Your task to perform on an android device: Search for usb-a on bestbuy.com, select the first entry, add it to the cart, then select checkout. Image 0: 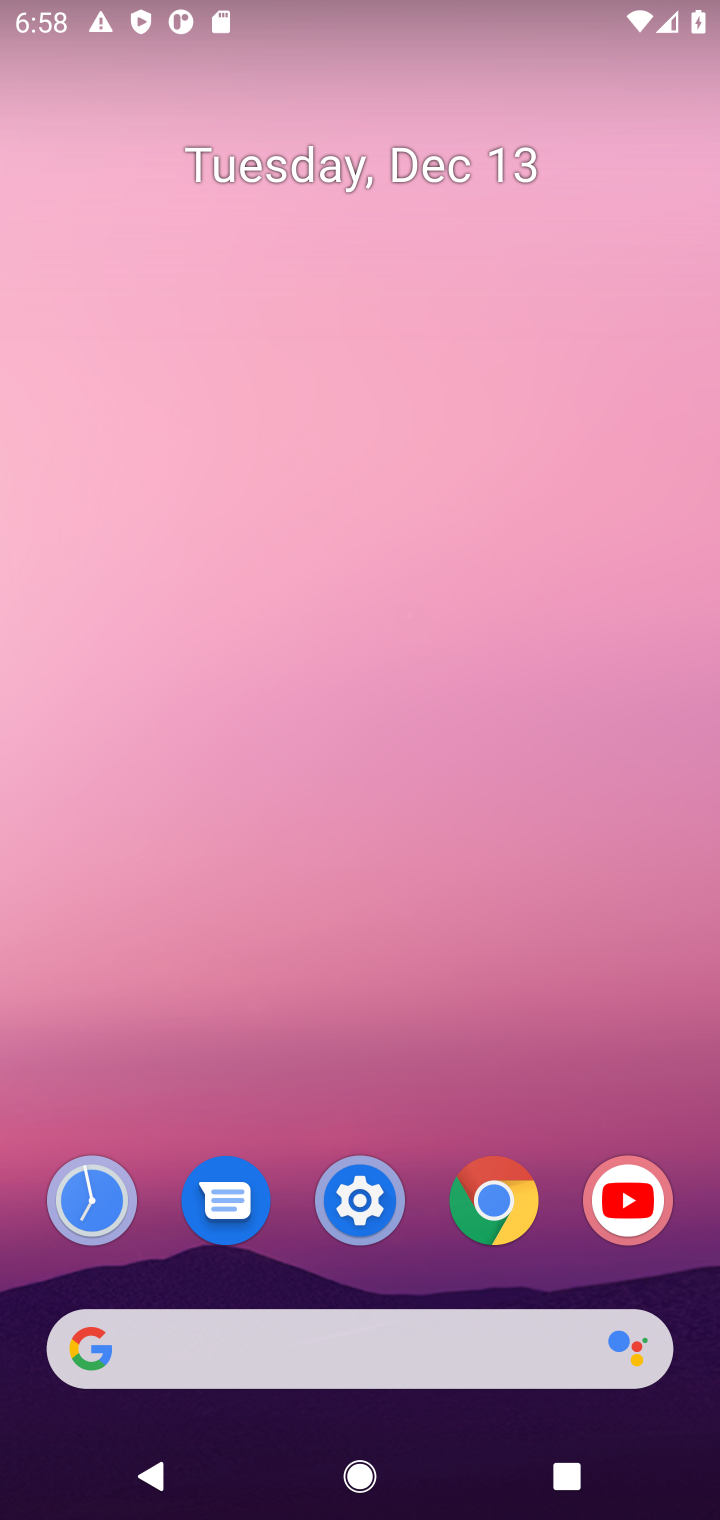
Step 0: click (279, 1316)
Your task to perform on an android device: Search for usb-a on bestbuy.com, select the first entry, add it to the cart, then select checkout. Image 1: 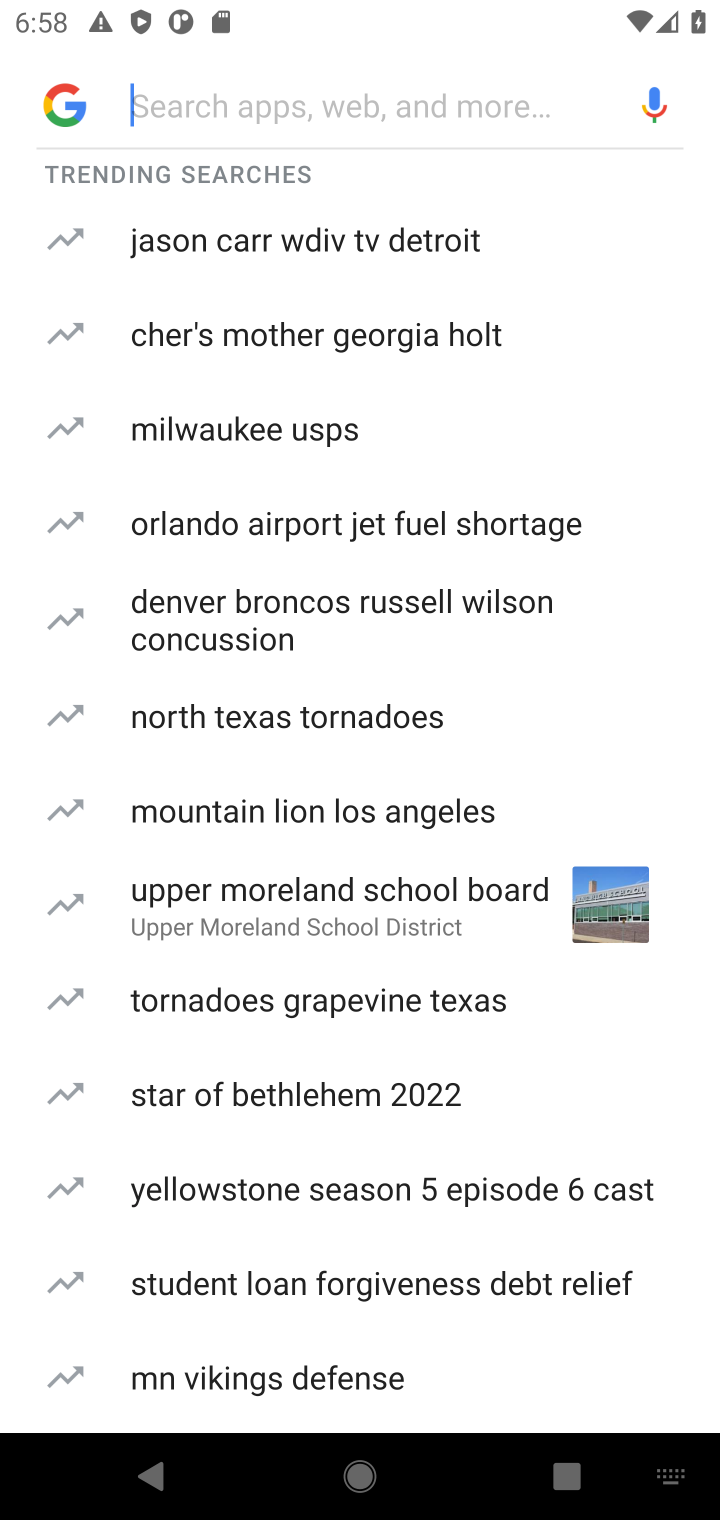
Step 1: type "bestbuy.com"
Your task to perform on an android device: Search for usb-a on bestbuy.com, select the first entry, add it to the cart, then select checkout. Image 2: 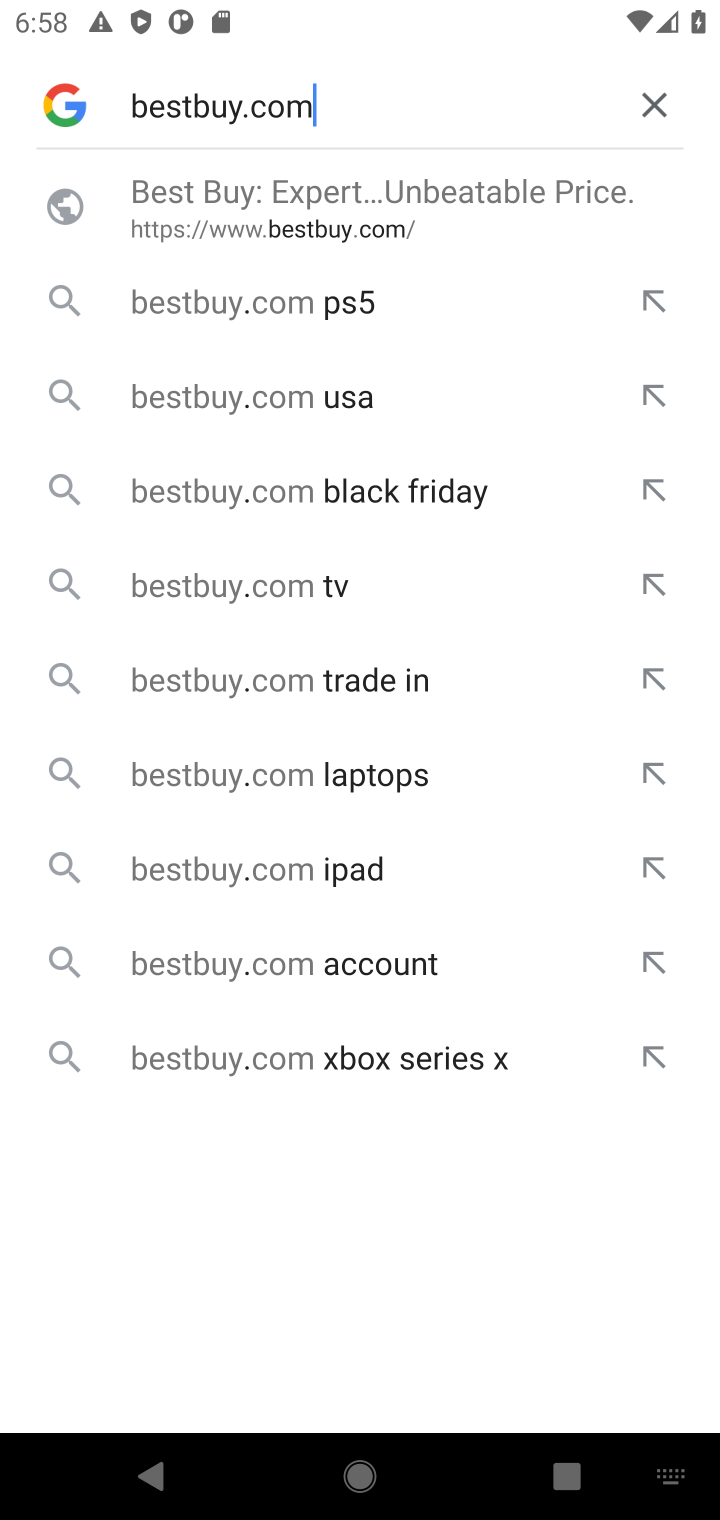
Step 2: click (325, 183)
Your task to perform on an android device: Search for usb-a on bestbuy.com, select the first entry, add it to the cart, then select checkout. Image 3: 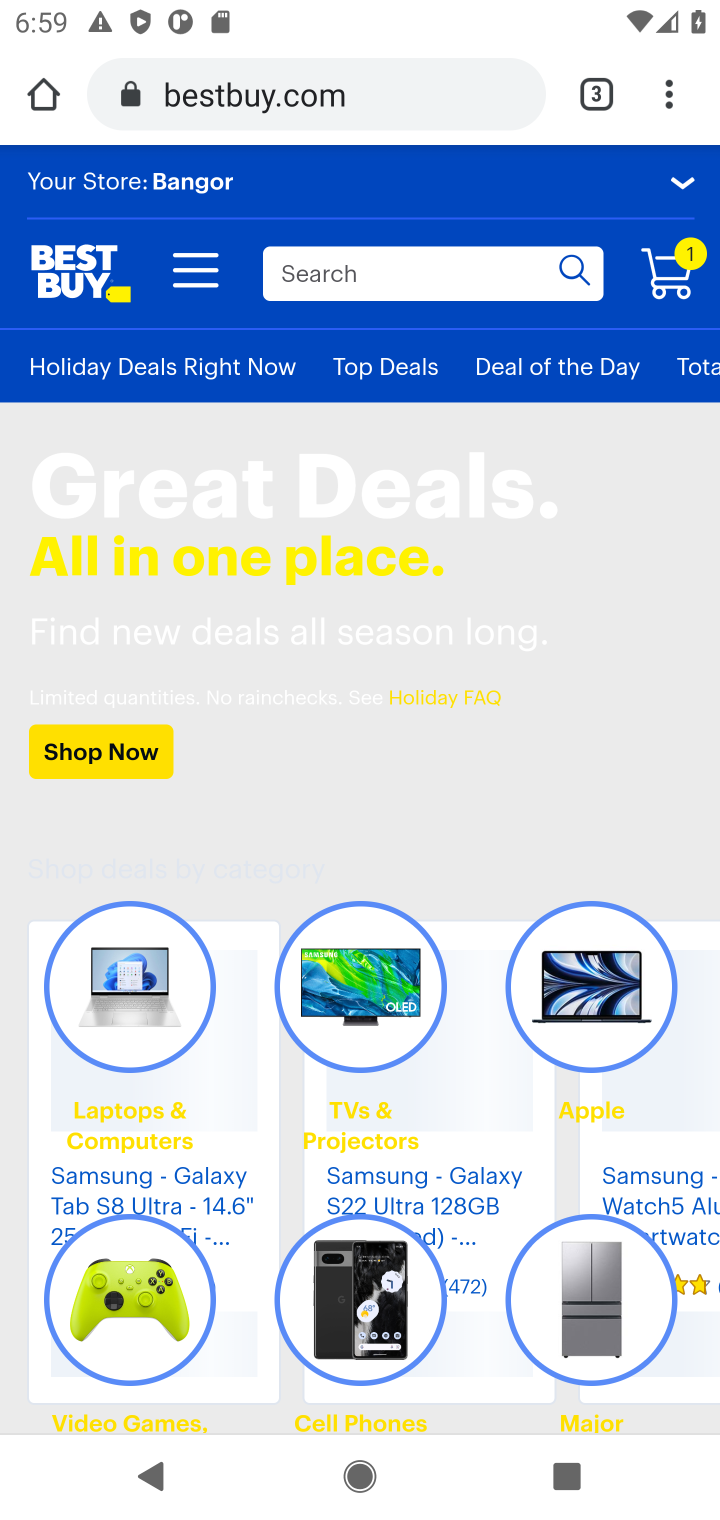
Step 3: click (497, 286)
Your task to perform on an android device: Search for usb-a on bestbuy.com, select the first entry, add it to the cart, then select checkout. Image 4: 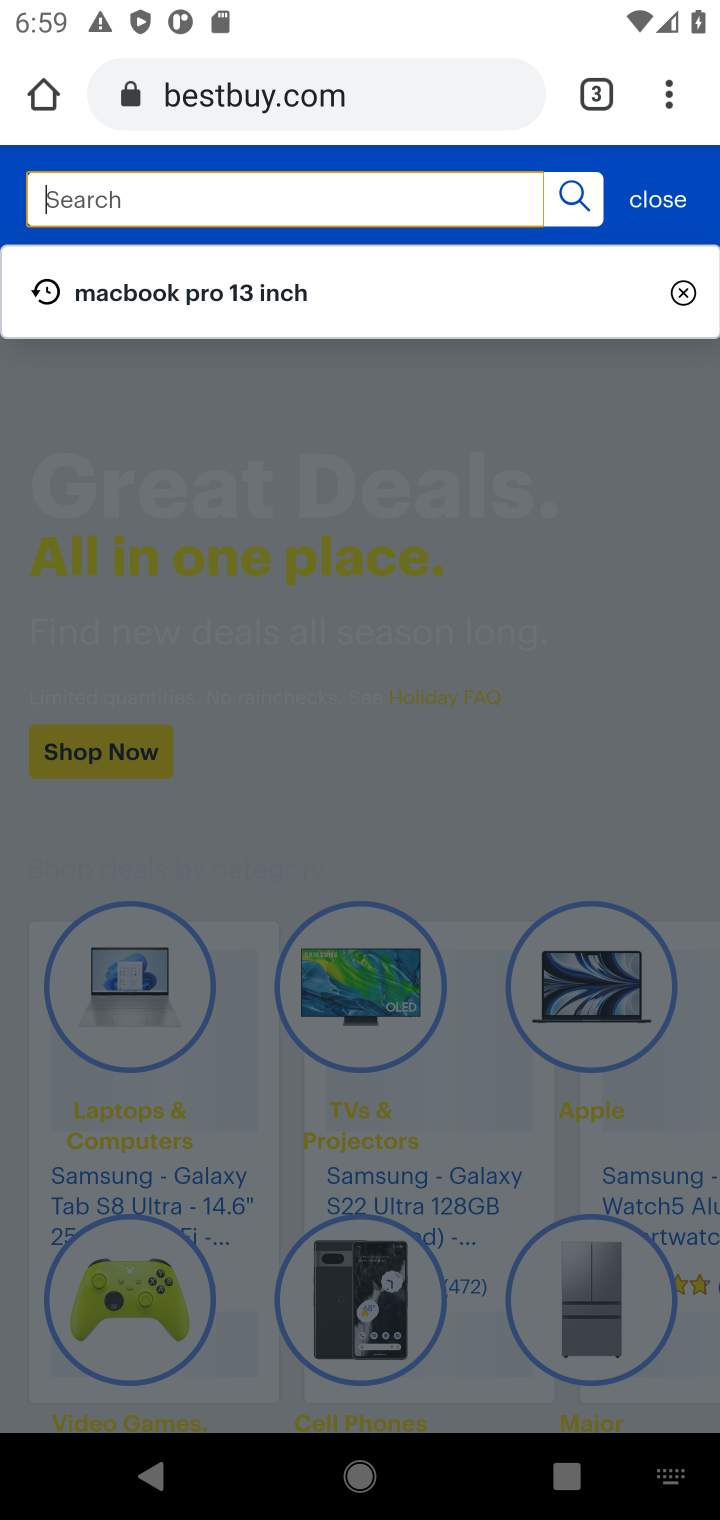
Step 4: type "usb-a "
Your task to perform on an android device: Search for usb-a on bestbuy.com, select the first entry, add it to the cart, then select checkout. Image 5: 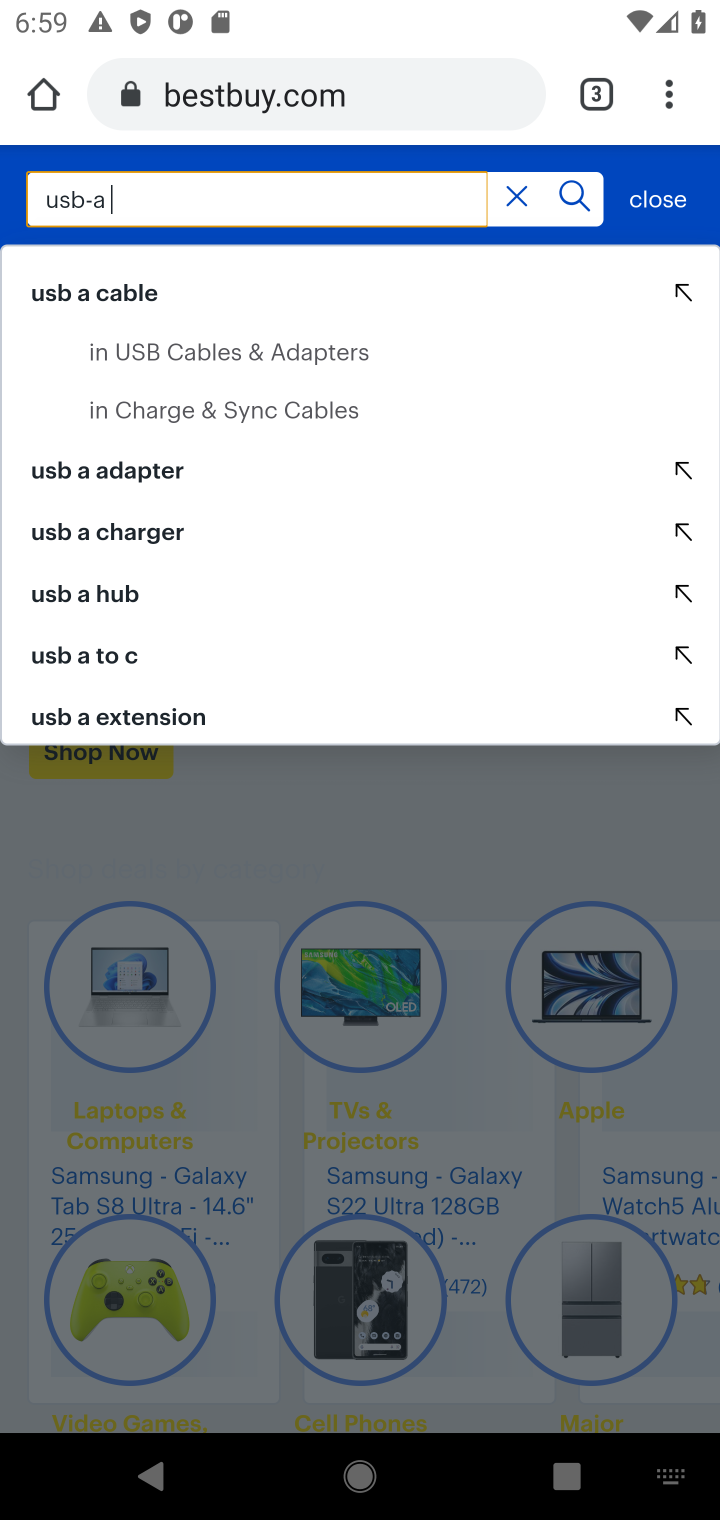
Step 5: click (569, 206)
Your task to perform on an android device: Search for usb-a on bestbuy.com, select the first entry, add it to the cart, then select checkout. Image 6: 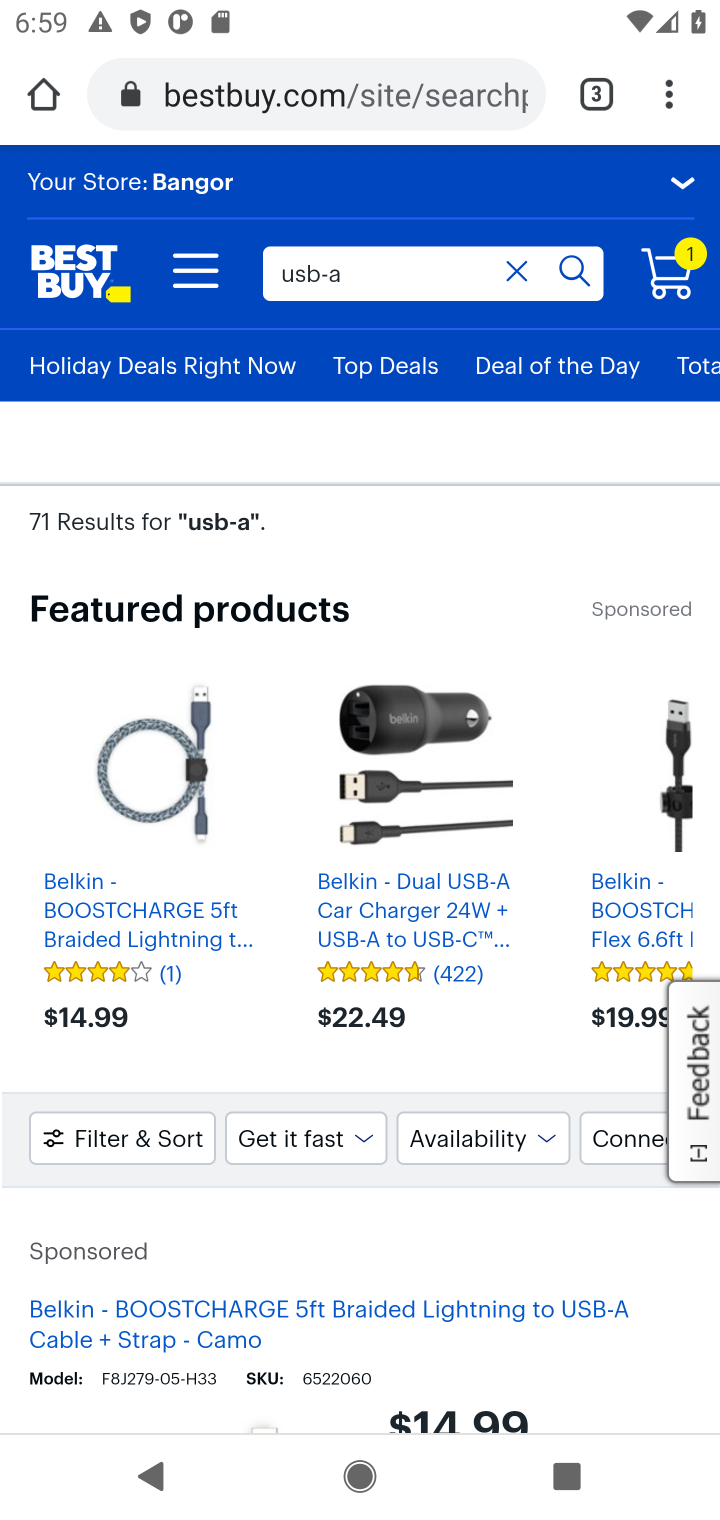
Step 6: drag from (578, 1118) to (599, 980)
Your task to perform on an android device: Search for usb-a on bestbuy.com, select the first entry, add it to the cart, then select checkout. Image 7: 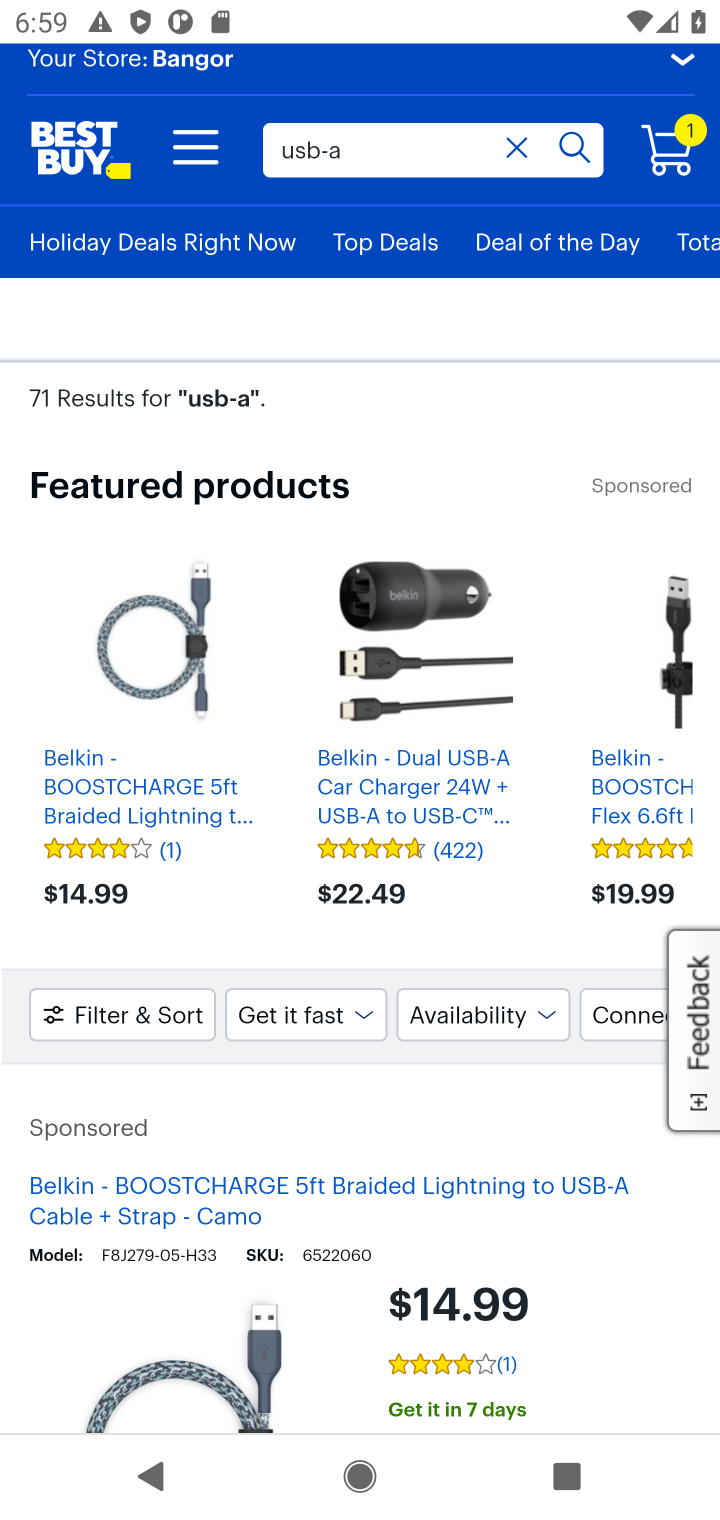
Step 7: drag from (481, 1237) to (455, 971)
Your task to perform on an android device: Search for usb-a on bestbuy.com, select the first entry, add it to the cart, then select checkout. Image 8: 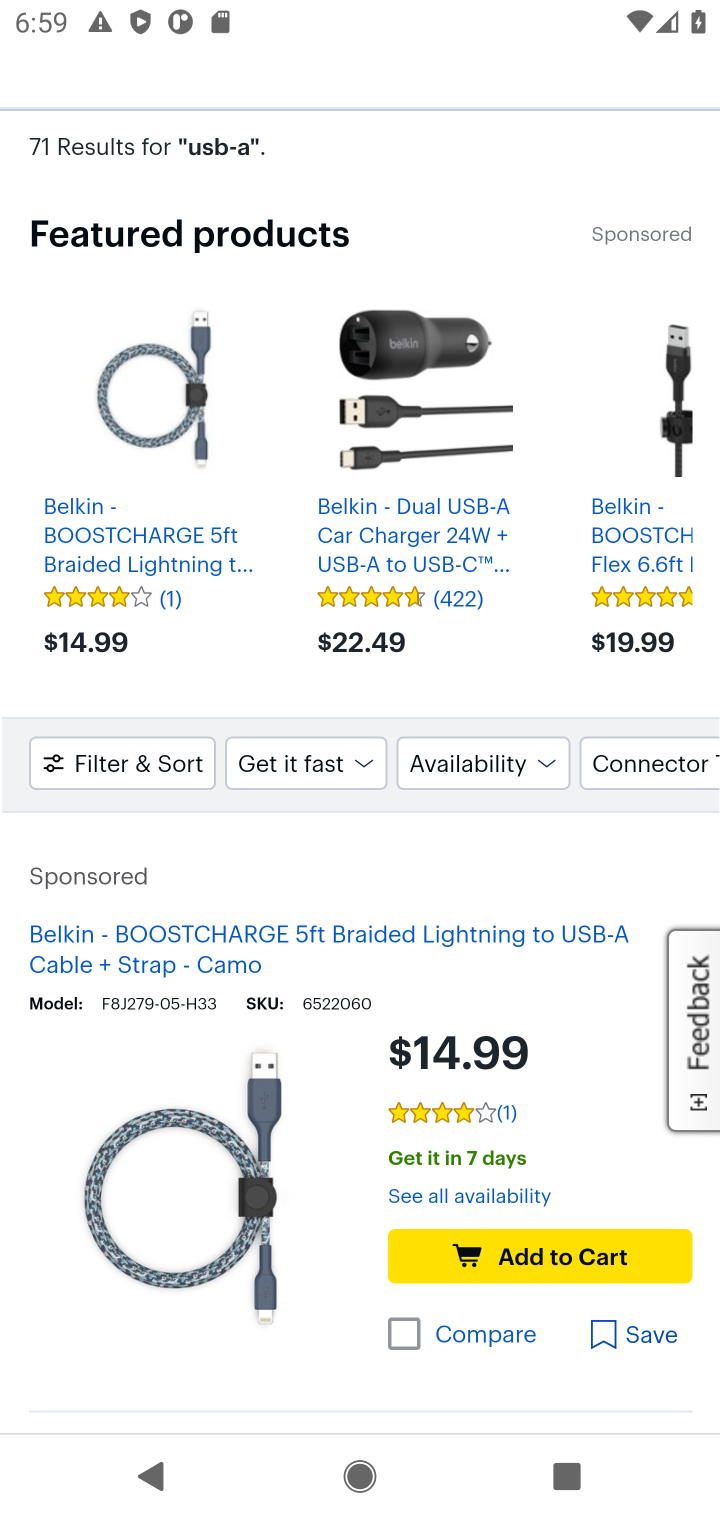
Step 8: click (539, 1263)
Your task to perform on an android device: Search for usb-a on bestbuy.com, select the first entry, add it to the cart, then select checkout. Image 9: 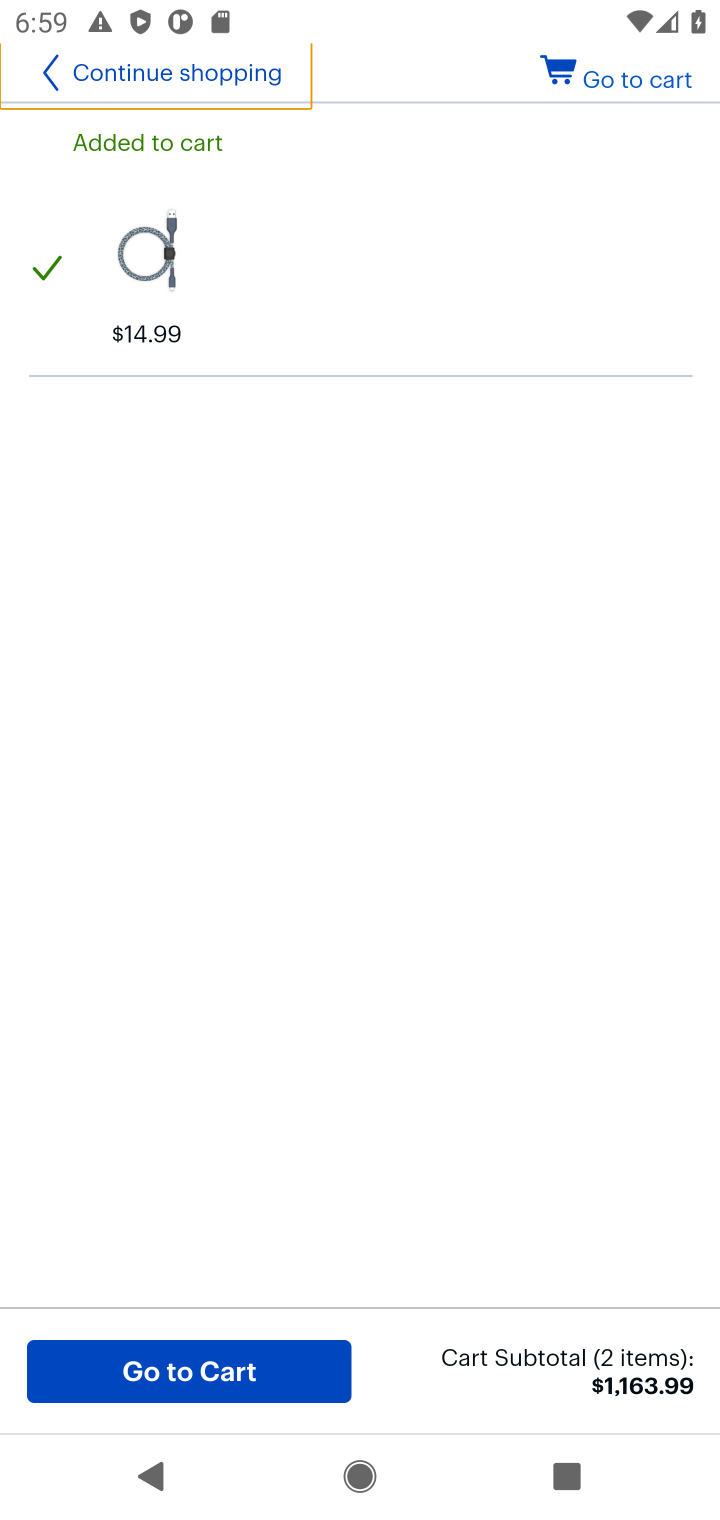
Step 9: click (247, 1350)
Your task to perform on an android device: Search for usb-a on bestbuy.com, select the first entry, add it to the cart, then select checkout. Image 10: 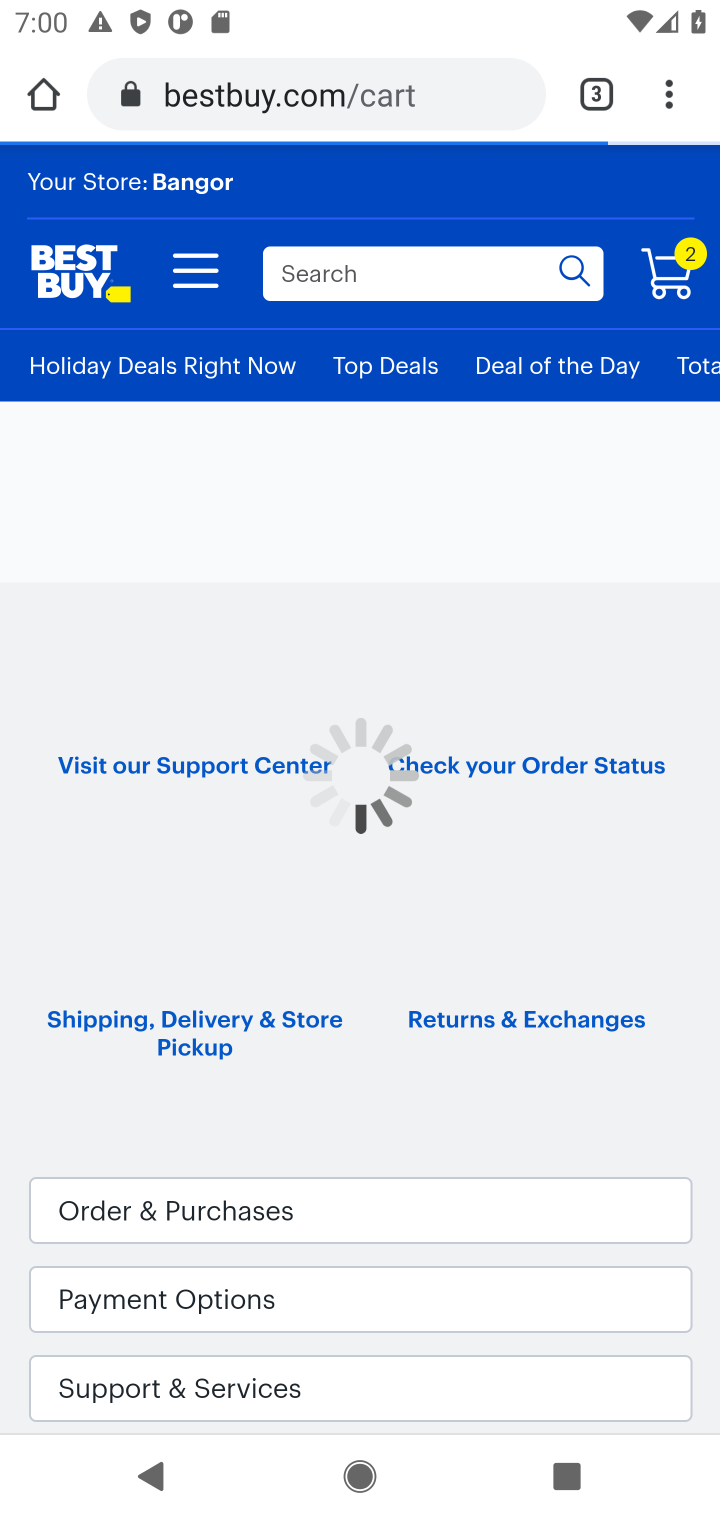
Step 10: click (681, 283)
Your task to perform on an android device: Search for usb-a on bestbuy.com, select the first entry, add it to the cart, then select checkout. Image 11: 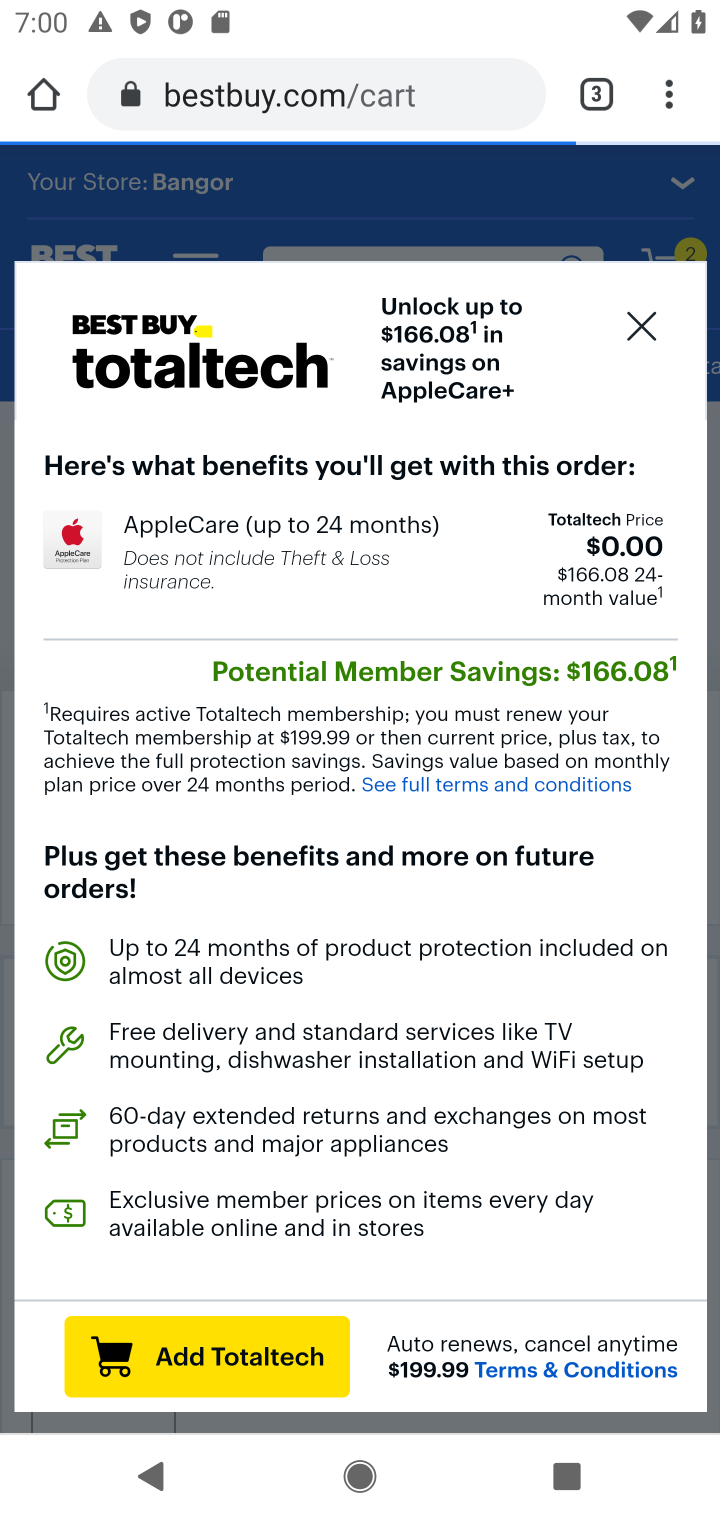
Step 11: click (342, 834)
Your task to perform on an android device: Search for usb-a on bestbuy.com, select the first entry, add it to the cart, then select checkout. Image 12: 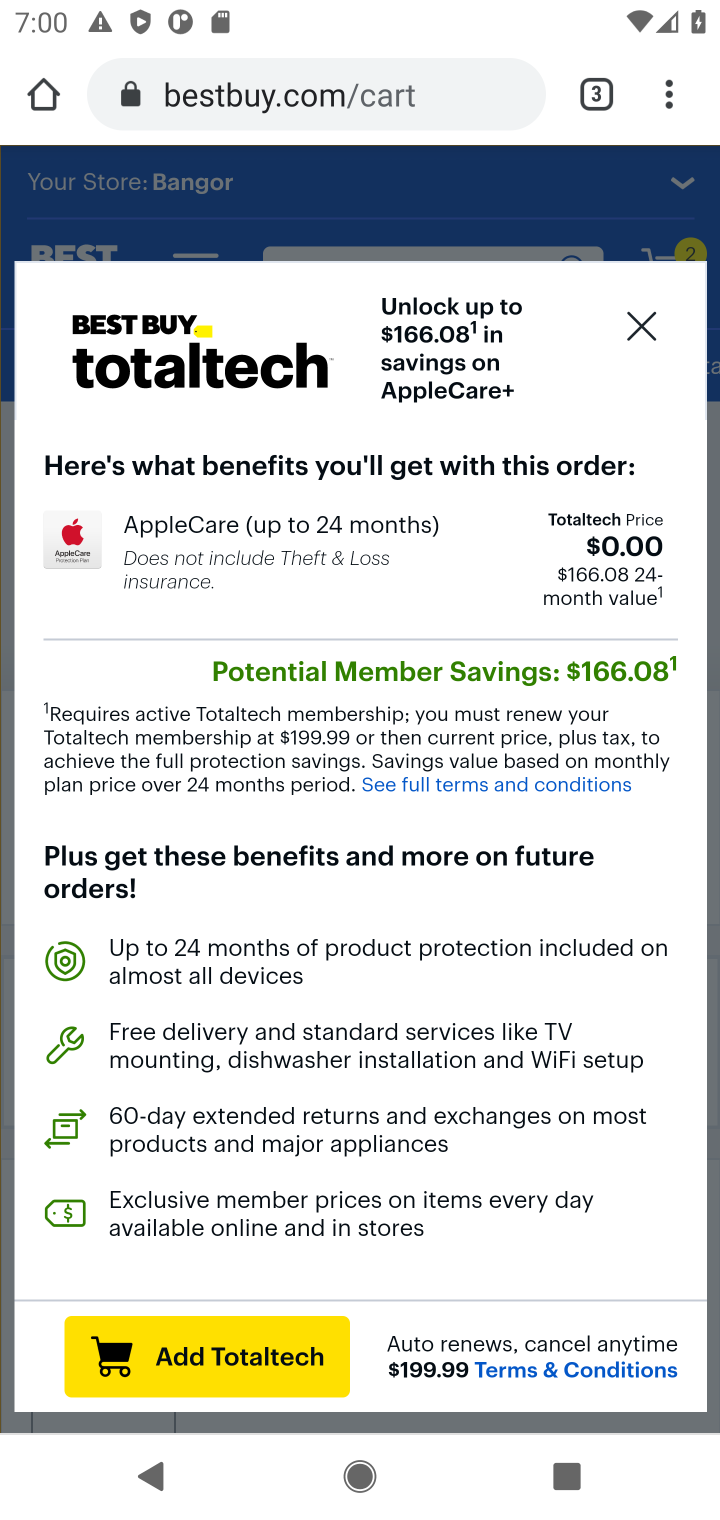
Step 12: click (639, 329)
Your task to perform on an android device: Search for usb-a on bestbuy.com, select the first entry, add it to the cart, then select checkout. Image 13: 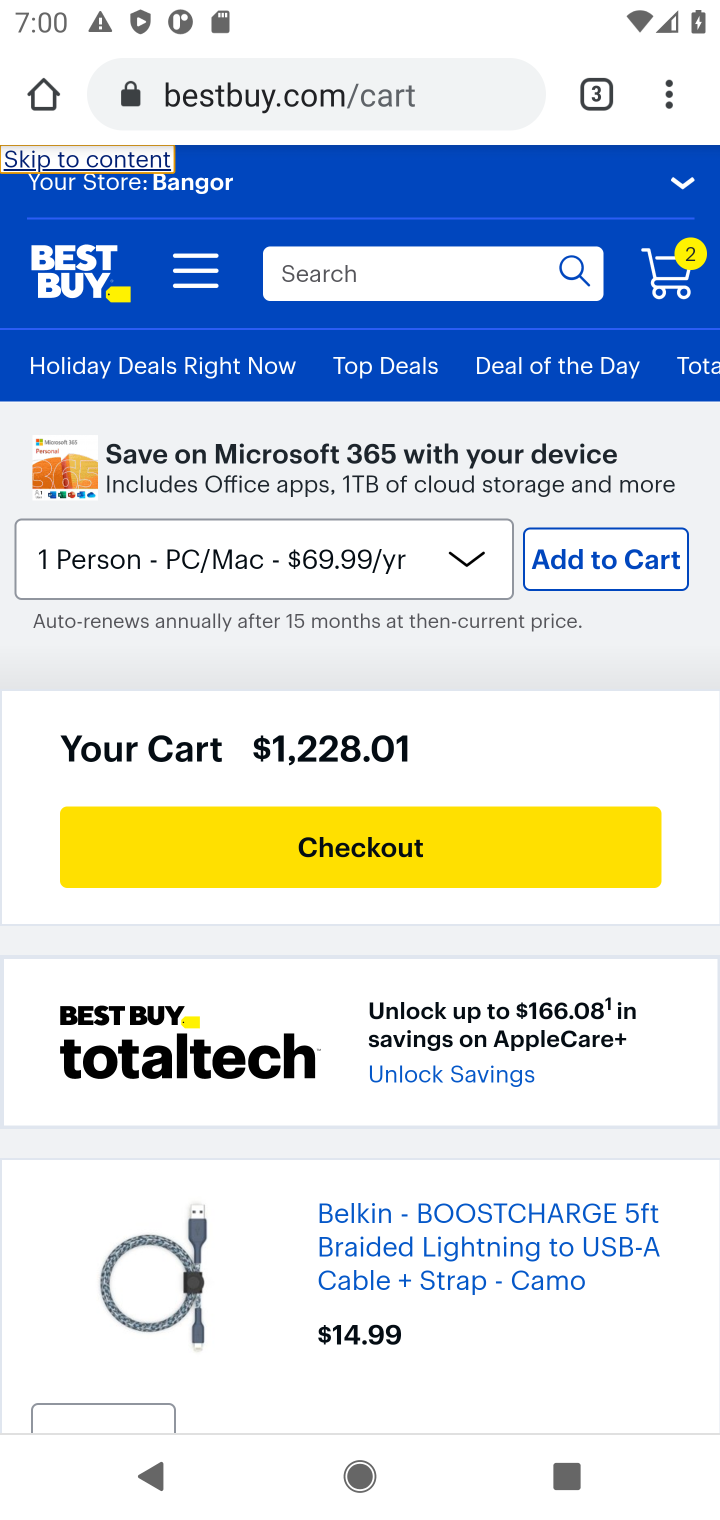
Step 13: click (335, 857)
Your task to perform on an android device: Search for usb-a on bestbuy.com, select the first entry, add it to the cart, then select checkout. Image 14: 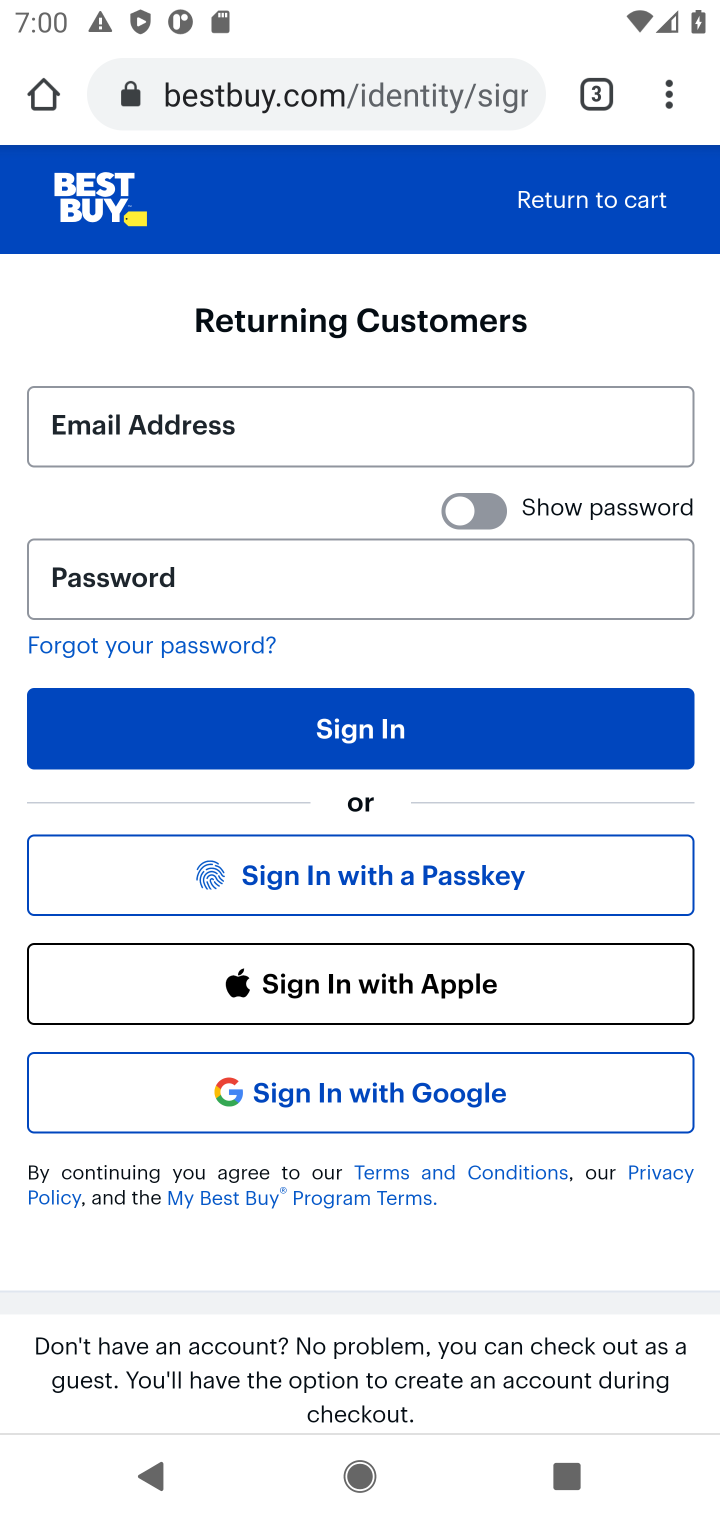
Step 14: task complete